Your task to perform on an android device: allow cookies in the chrome app Image 0: 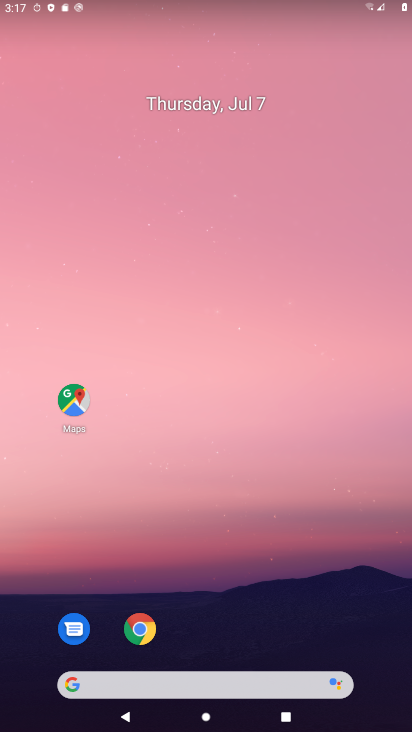
Step 0: drag from (220, 508) to (231, 14)
Your task to perform on an android device: allow cookies in the chrome app Image 1: 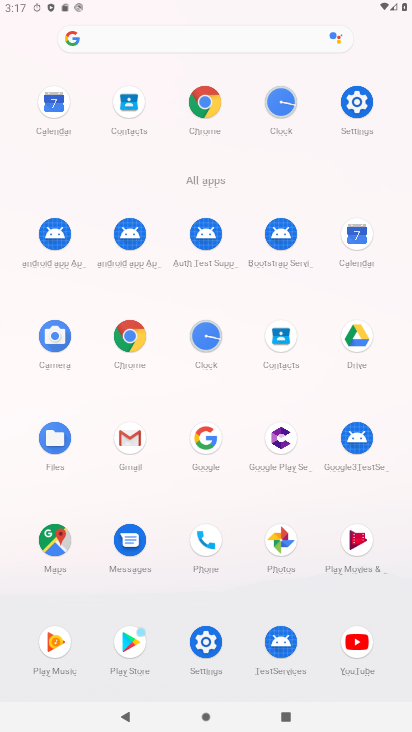
Step 1: click (199, 113)
Your task to perform on an android device: allow cookies in the chrome app Image 2: 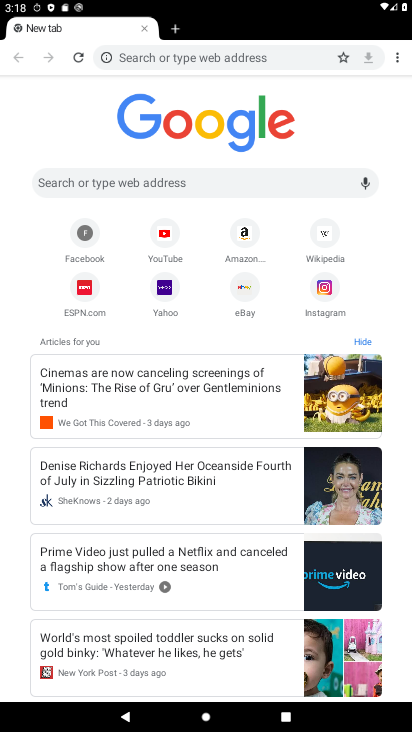
Step 2: click (395, 54)
Your task to perform on an android device: allow cookies in the chrome app Image 3: 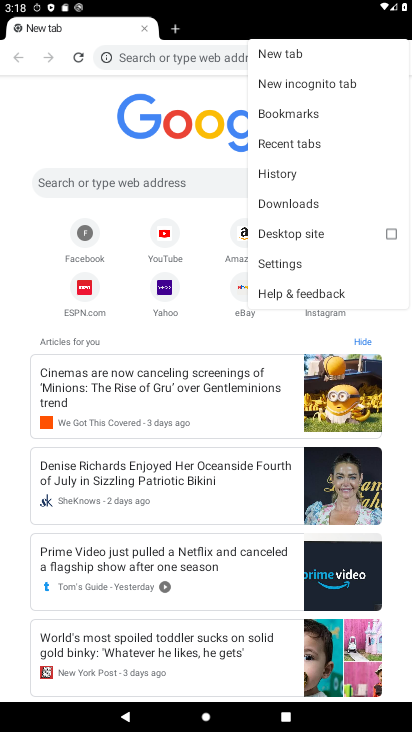
Step 3: click (272, 265)
Your task to perform on an android device: allow cookies in the chrome app Image 4: 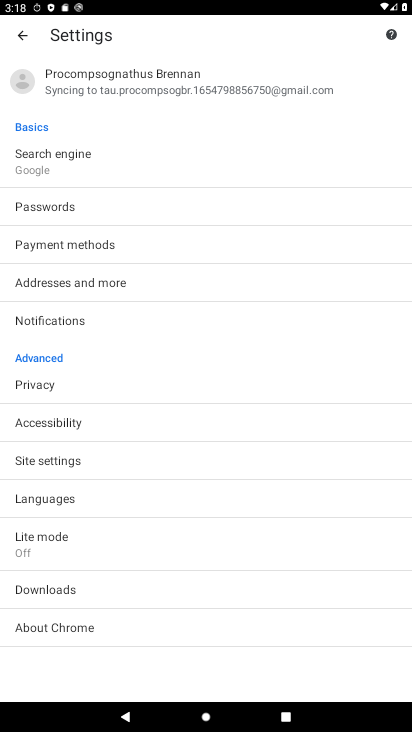
Step 4: click (53, 463)
Your task to perform on an android device: allow cookies in the chrome app Image 5: 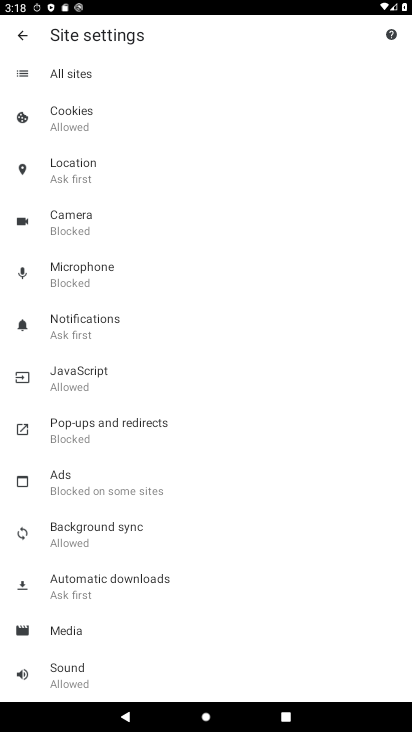
Step 5: click (78, 111)
Your task to perform on an android device: allow cookies in the chrome app Image 6: 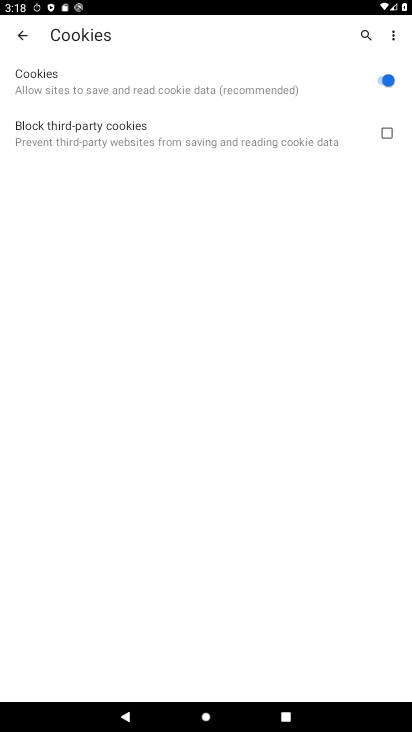
Step 6: task complete